Your task to perform on an android device: Is it going to rain today? Image 0: 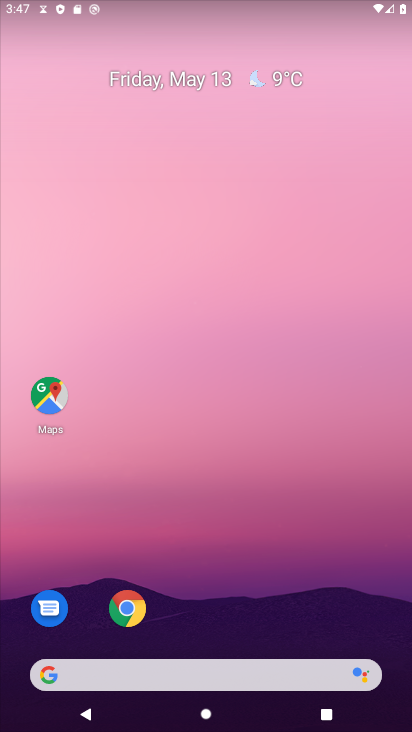
Step 0: drag from (241, 644) to (321, 350)
Your task to perform on an android device: Is it going to rain today? Image 1: 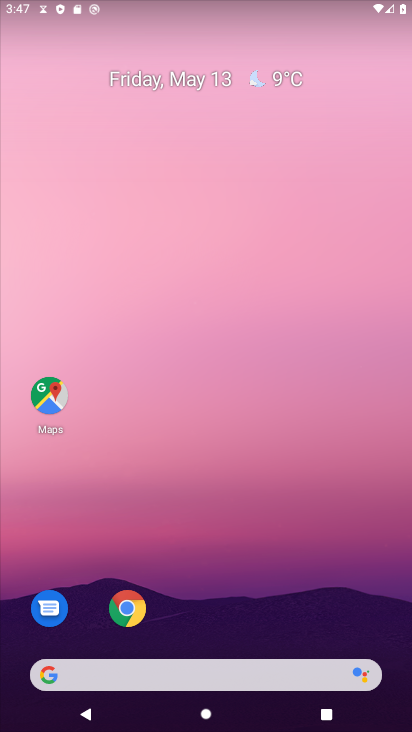
Step 1: drag from (218, 618) to (317, 205)
Your task to perform on an android device: Is it going to rain today? Image 2: 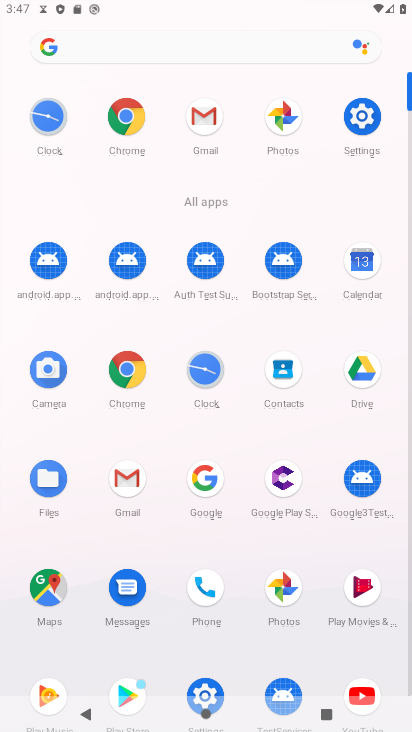
Step 2: click (202, 478)
Your task to perform on an android device: Is it going to rain today? Image 3: 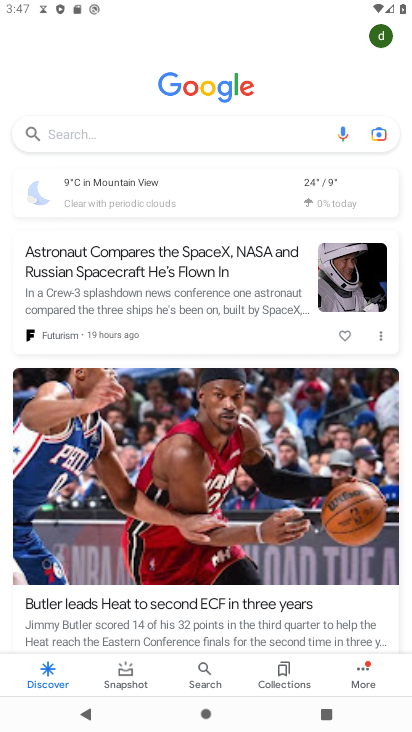
Step 3: click (188, 192)
Your task to perform on an android device: Is it going to rain today? Image 4: 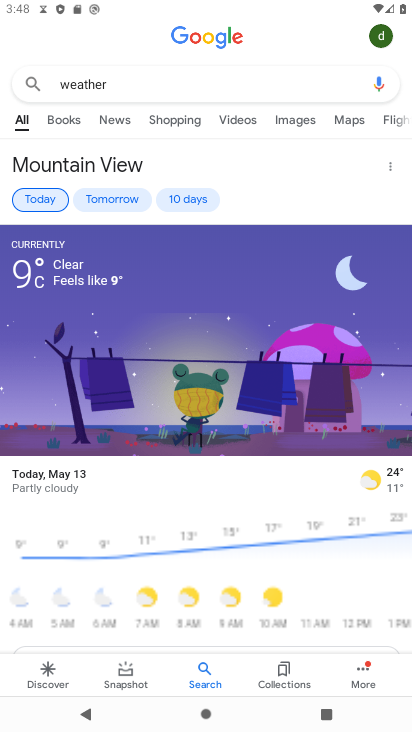
Step 4: task complete